Your task to perform on an android device: set default search engine in the chrome app Image 0: 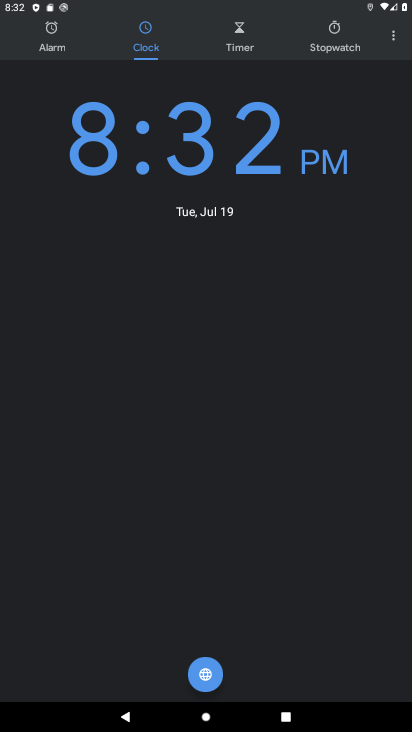
Step 0: click (138, 628)
Your task to perform on an android device: set default search engine in the chrome app Image 1: 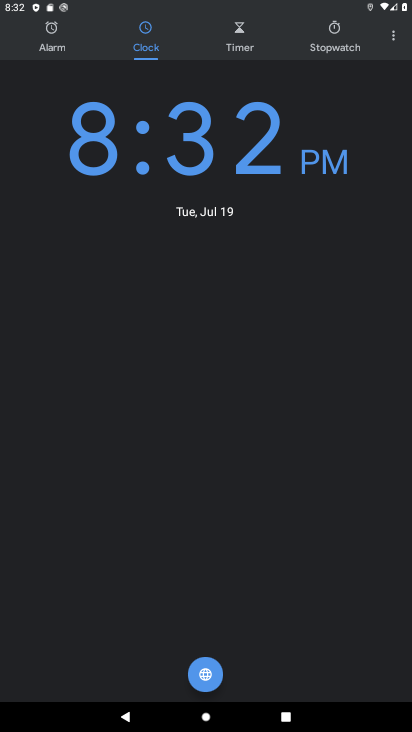
Step 1: press home button
Your task to perform on an android device: set default search engine in the chrome app Image 2: 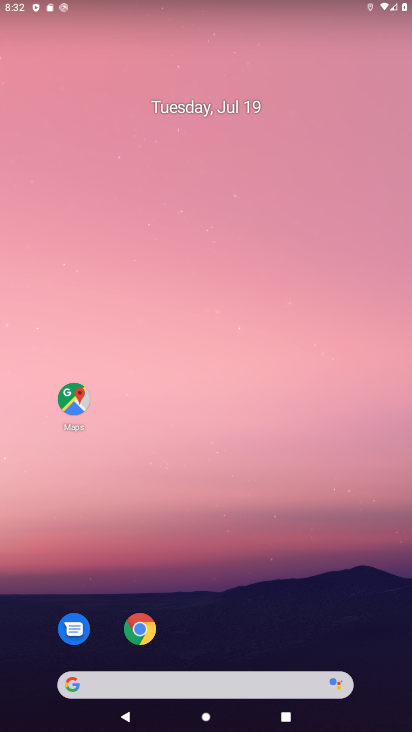
Step 2: click (135, 625)
Your task to perform on an android device: set default search engine in the chrome app Image 3: 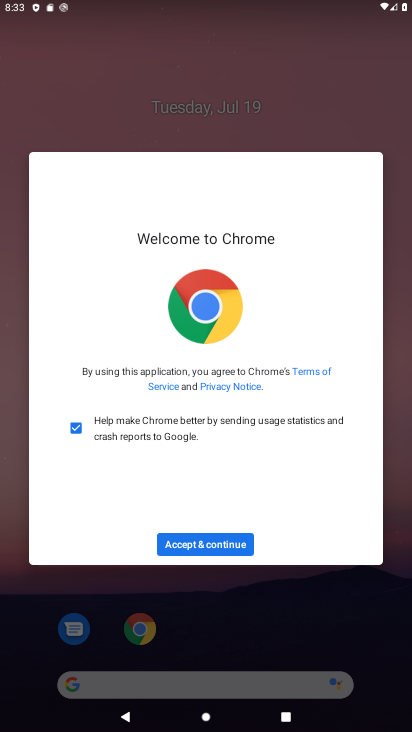
Step 3: click (210, 543)
Your task to perform on an android device: set default search engine in the chrome app Image 4: 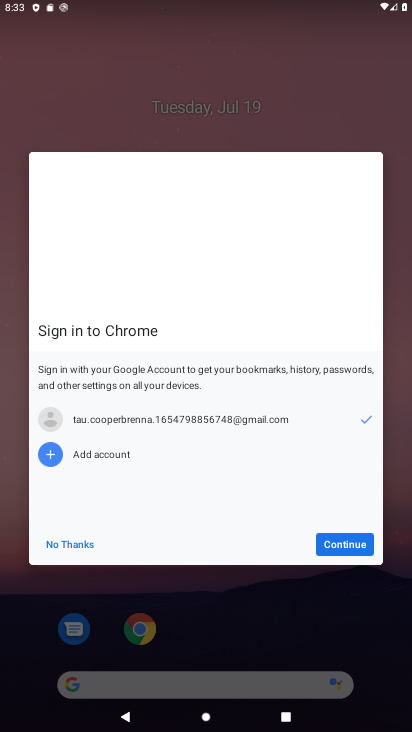
Step 4: click (345, 547)
Your task to perform on an android device: set default search engine in the chrome app Image 5: 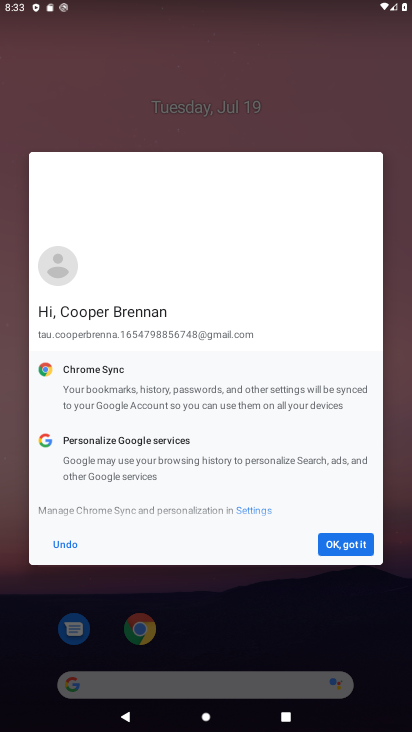
Step 5: click (338, 545)
Your task to perform on an android device: set default search engine in the chrome app Image 6: 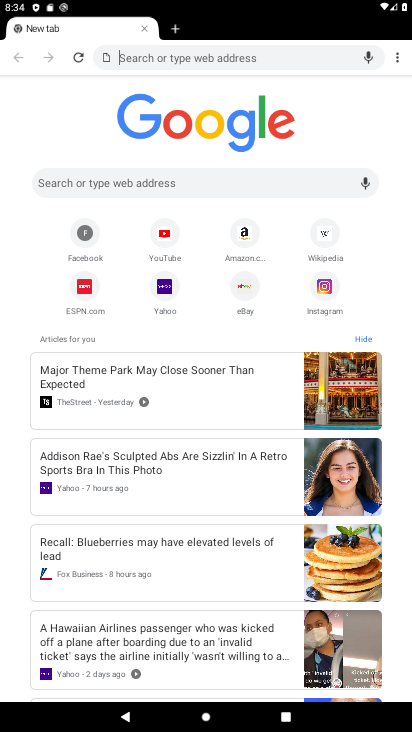
Step 6: click (397, 55)
Your task to perform on an android device: set default search engine in the chrome app Image 7: 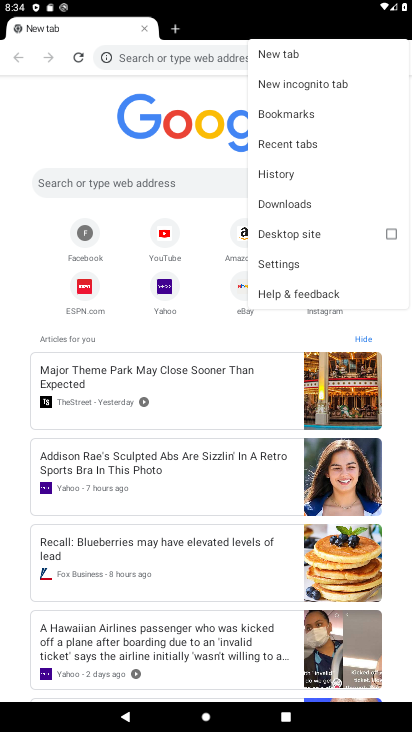
Step 7: click (300, 258)
Your task to perform on an android device: set default search engine in the chrome app Image 8: 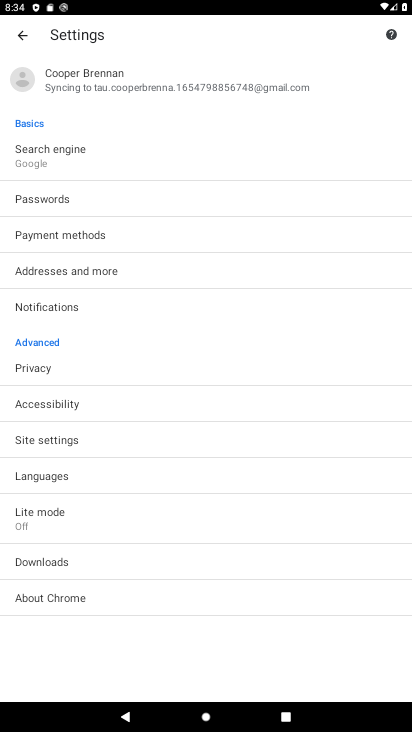
Step 8: click (83, 153)
Your task to perform on an android device: set default search engine in the chrome app Image 9: 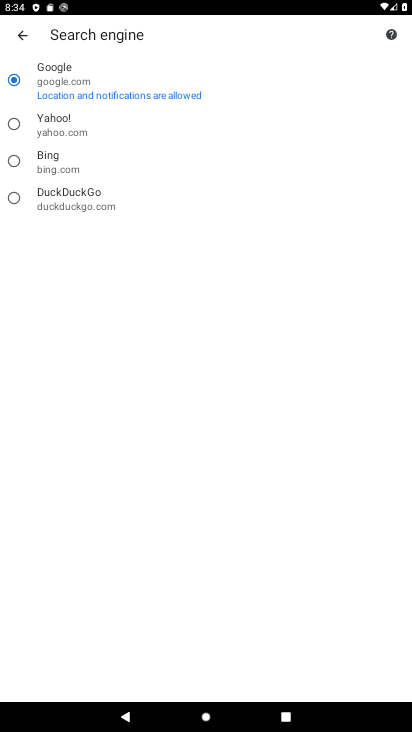
Step 9: click (14, 160)
Your task to perform on an android device: set default search engine in the chrome app Image 10: 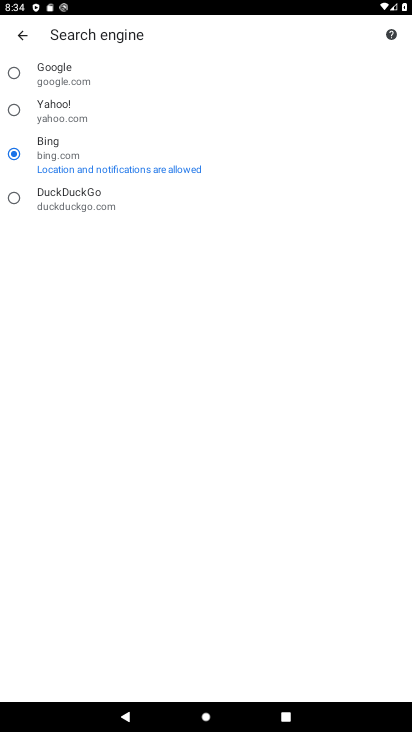
Step 10: task complete